Your task to perform on an android device: turn off improve location accuracy Image 0: 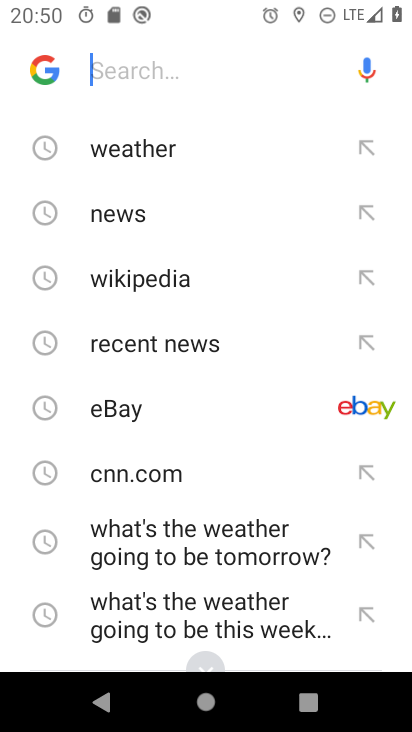
Step 0: press home button
Your task to perform on an android device: turn off improve location accuracy Image 1: 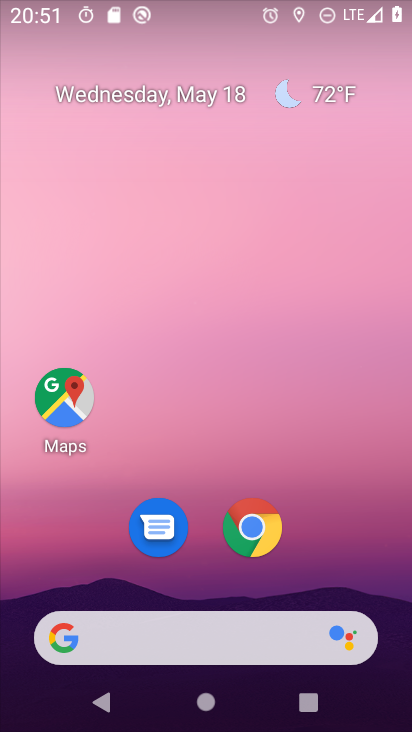
Step 1: drag from (397, 713) to (398, 269)
Your task to perform on an android device: turn off improve location accuracy Image 2: 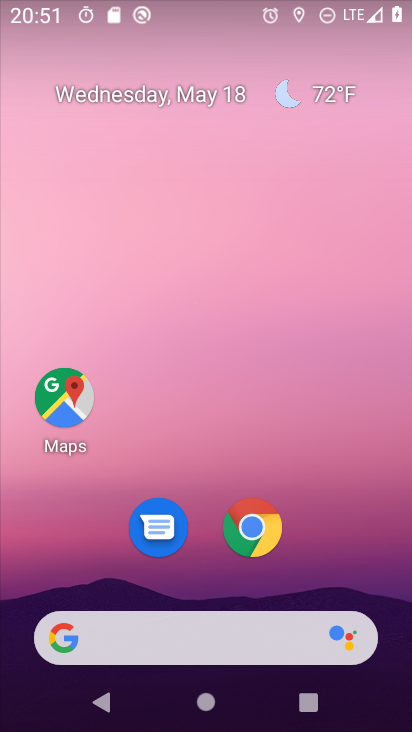
Step 2: drag from (397, 720) to (384, 253)
Your task to perform on an android device: turn off improve location accuracy Image 3: 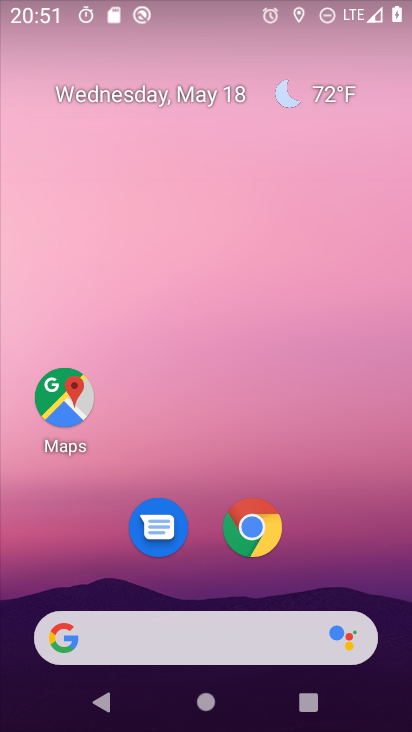
Step 3: drag from (397, 715) to (392, 231)
Your task to perform on an android device: turn off improve location accuracy Image 4: 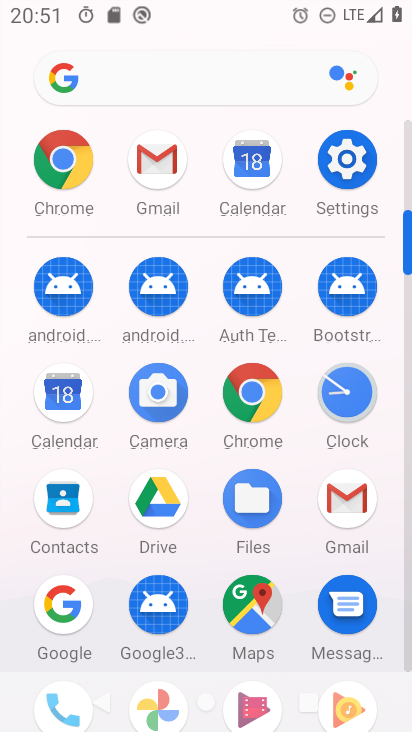
Step 4: click (351, 158)
Your task to perform on an android device: turn off improve location accuracy Image 5: 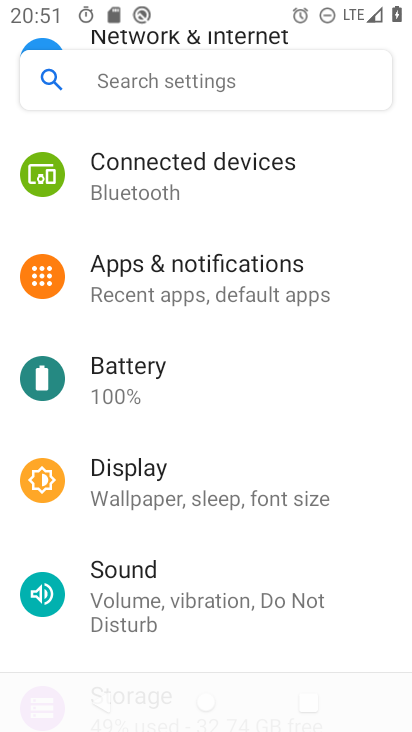
Step 5: drag from (360, 644) to (346, 148)
Your task to perform on an android device: turn off improve location accuracy Image 6: 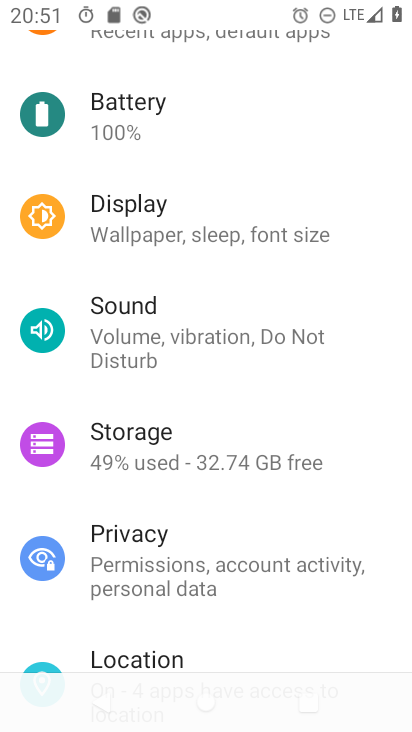
Step 6: click (125, 651)
Your task to perform on an android device: turn off improve location accuracy Image 7: 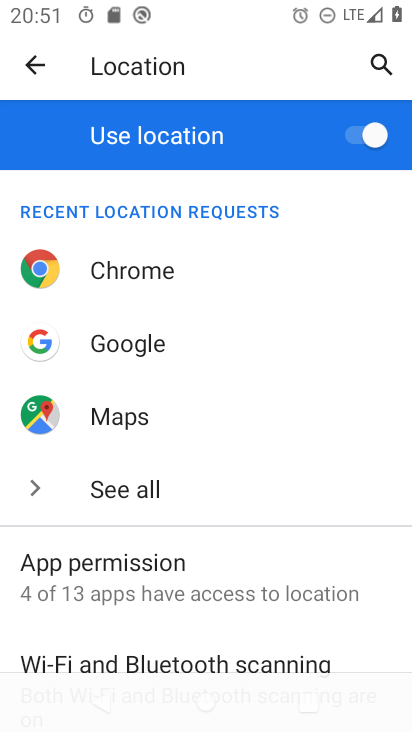
Step 7: drag from (387, 637) to (375, 240)
Your task to perform on an android device: turn off improve location accuracy Image 8: 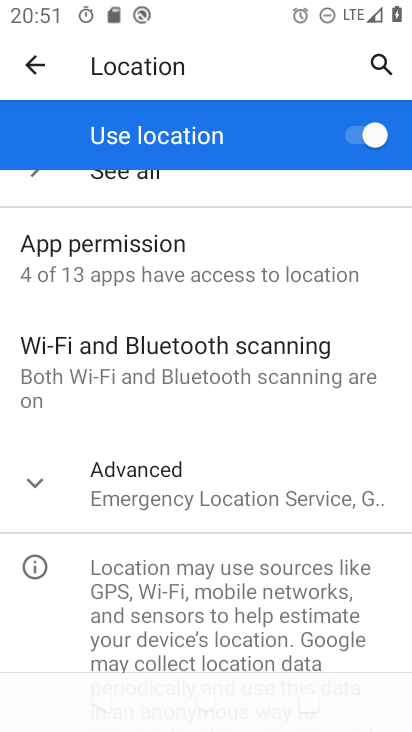
Step 8: click (46, 482)
Your task to perform on an android device: turn off improve location accuracy Image 9: 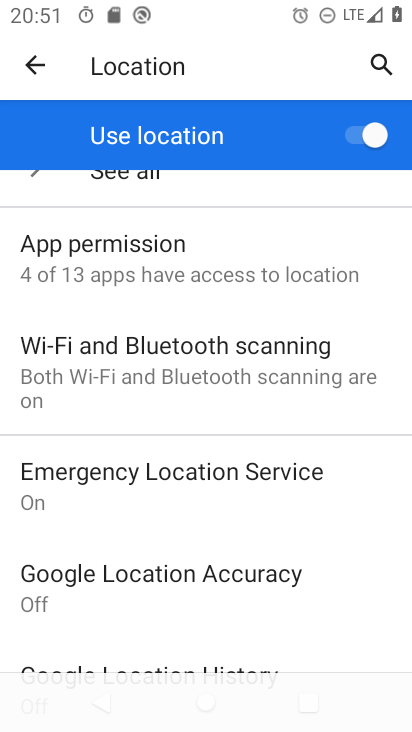
Step 9: drag from (368, 643) to (376, 439)
Your task to perform on an android device: turn off improve location accuracy Image 10: 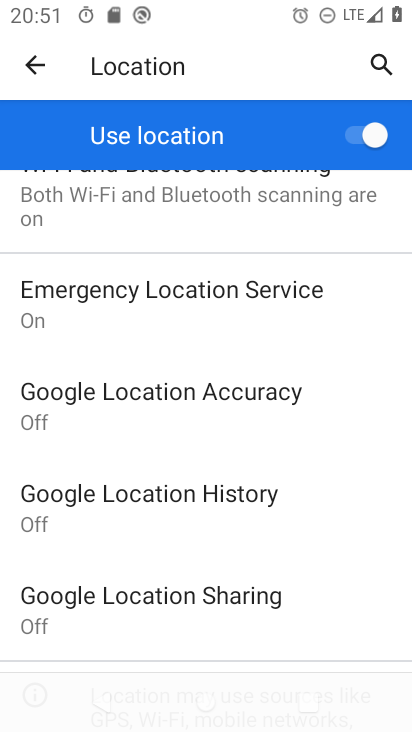
Step 10: click (96, 402)
Your task to perform on an android device: turn off improve location accuracy Image 11: 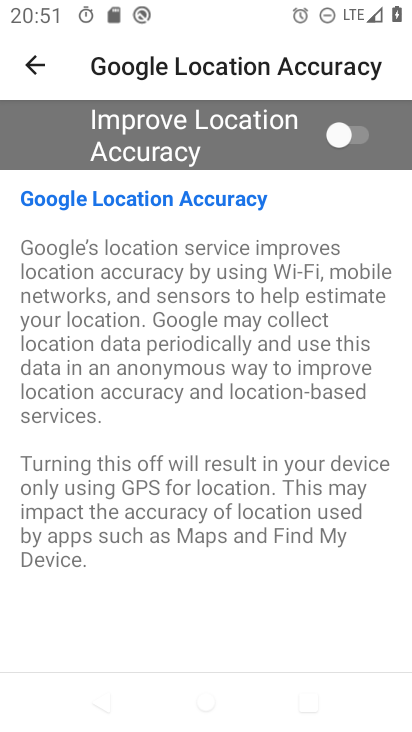
Step 11: task complete